Your task to perform on an android device: Check the weather Image 0: 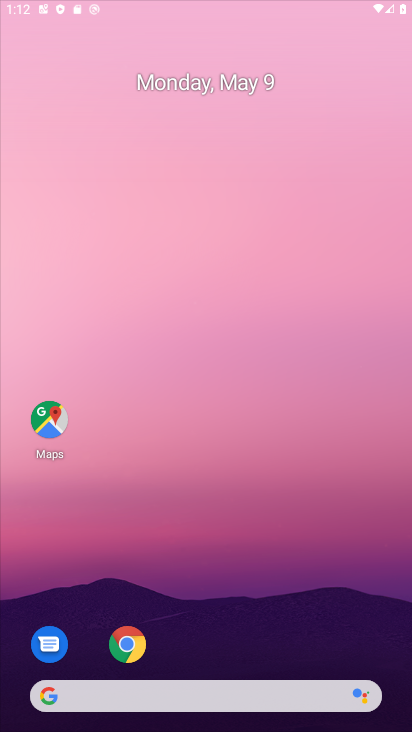
Step 0: drag from (243, 497) to (211, 108)
Your task to perform on an android device: Check the weather Image 1: 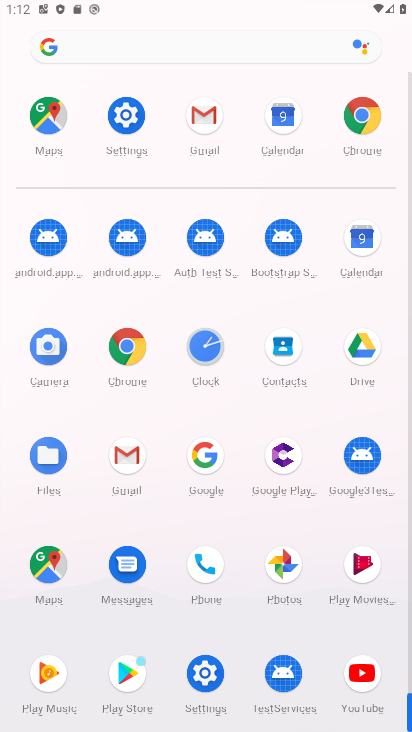
Step 1: drag from (323, 534) to (361, 180)
Your task to perform on an android device: Check the weather Image 2: 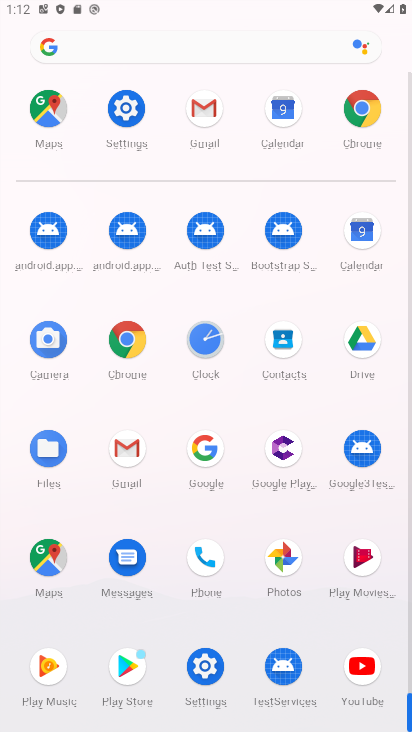
Step 2: drag from (233, 231) to (226, 682)
Your task to perform on an android device: Check the weather Image 3: 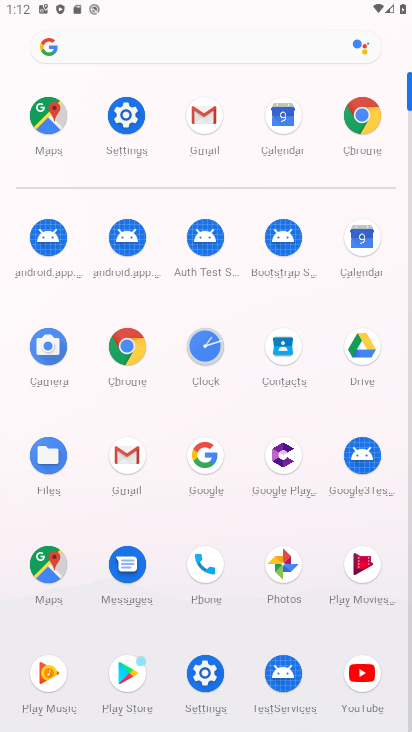
Step 3: drag from (230, 543) to (224, 198)
Your task to perform on an android device: Check the weather Image 4: 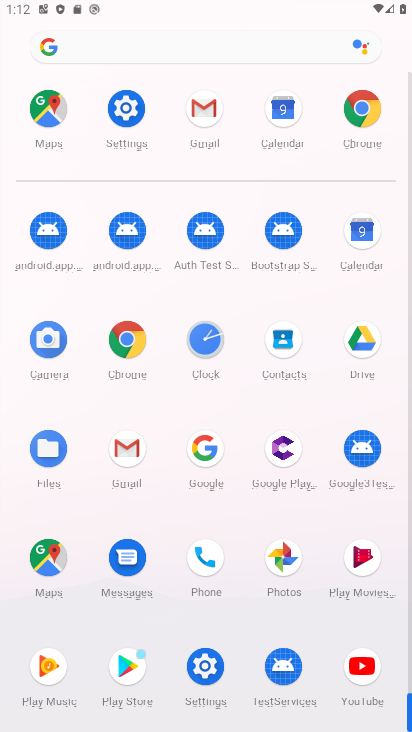
Step 4: drag from (257, 135) to (287, 683)
Your task to perform on an android device: Check the weather Image 5: 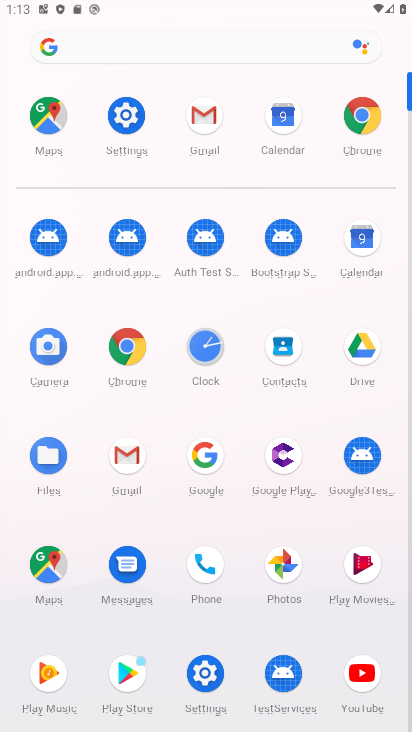
Step 5: drag from (239, 600) to (234, 159)
Your task to perform on an android device: Check the weather Image 6: 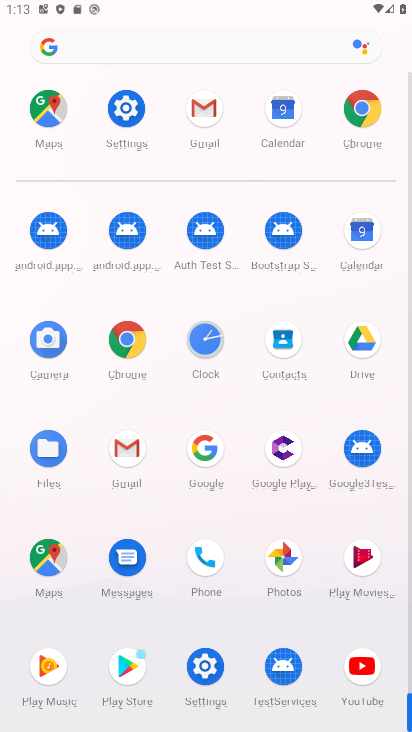
Step 6: click (206, 451)
Your task to perform on an android device: Check the weather Image 7: 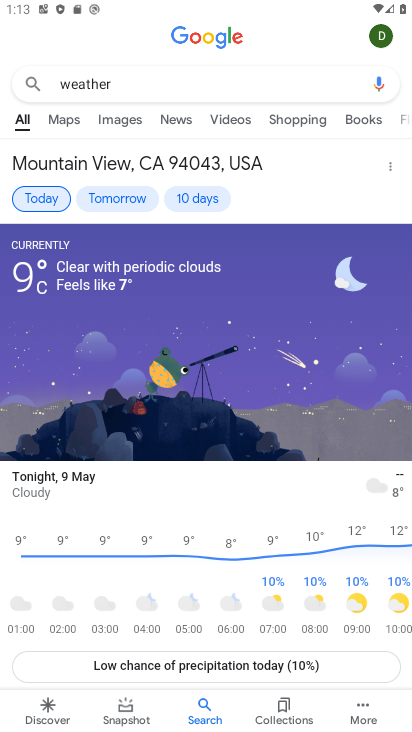
Step 7: task complete